Your task to perform on an android device: Open internet settings Image 0: 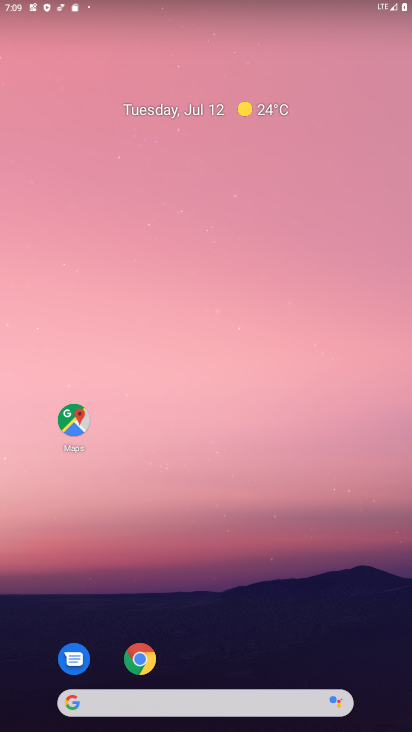
Step 0: drag from (290, 619) to (152, 5)
Your task to perform on an android device: Open internet settings Image 1: 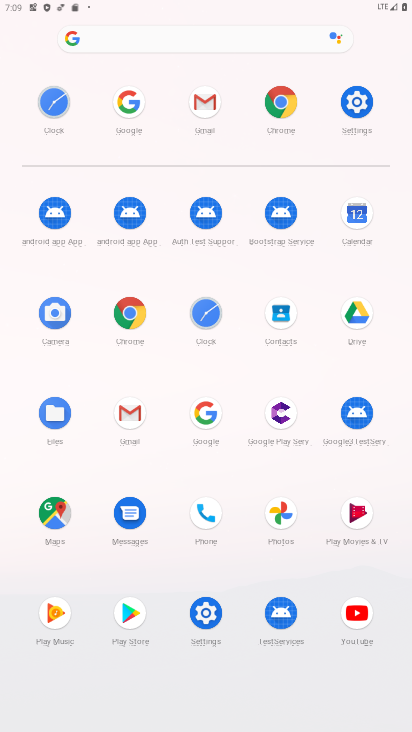
Step 1: click (366, 110)
Your task to perform on an android device: Open internet settings Image 2: 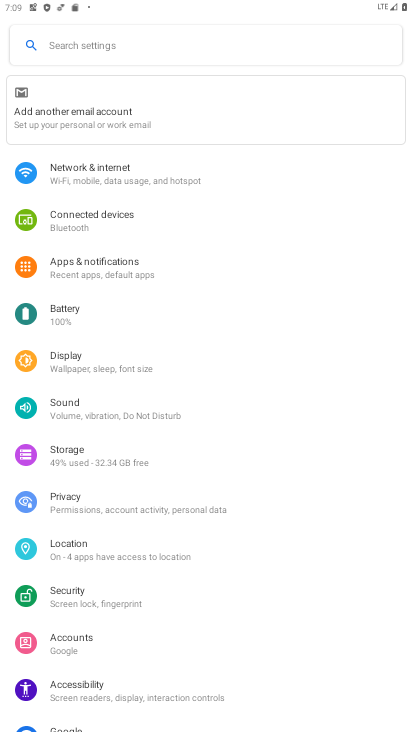
Step 2: click (64, 188)
Your task to perform on an android device: Open internet settings Image 3: 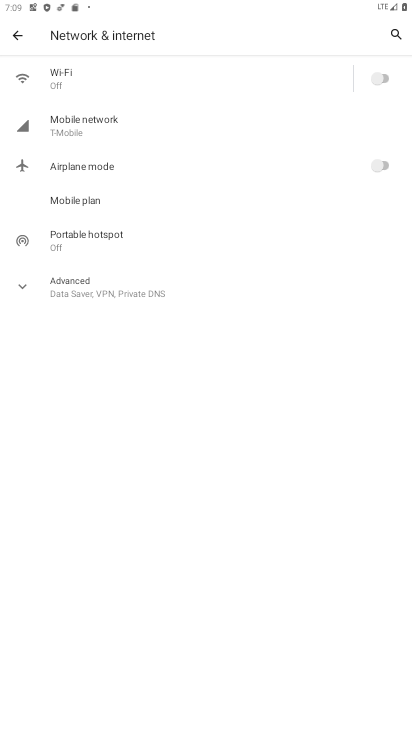
Step 3: task complete